Your task to perform on an android device: open a bookmark in the chrome app Image 0: 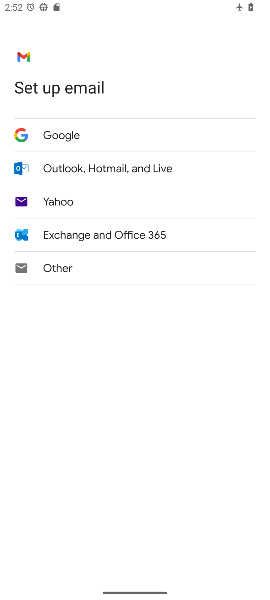
Step 0: press home button
Your task to perform on an android device: open a bookmark in the chrome app Image 1: 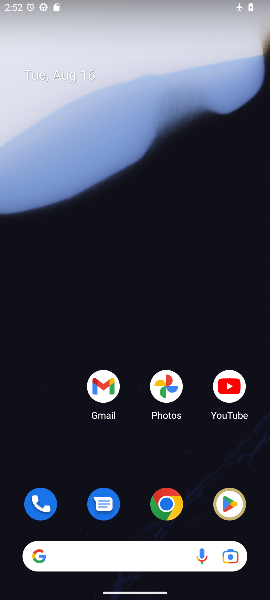
Step 1: click (168, 505)
Your task to perform on an android device: open a bookmark in the chrome app Image 2: 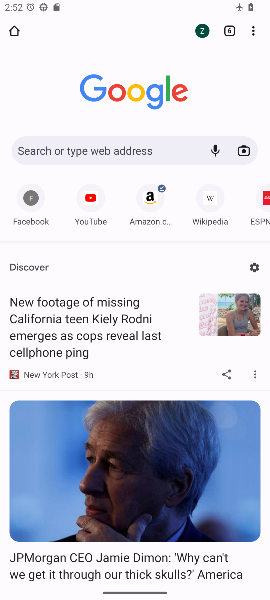
Step 2: click (251, 24)
Your task to perform on an android device: open a bookmark in the chrome app Image 3: 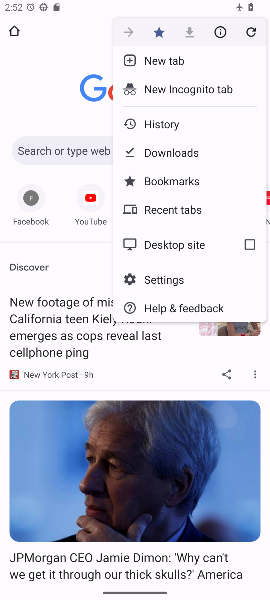
Step 3: click (165, 180)
Your task to perform on an android device: open a bookmark in the chrome app Image 4: 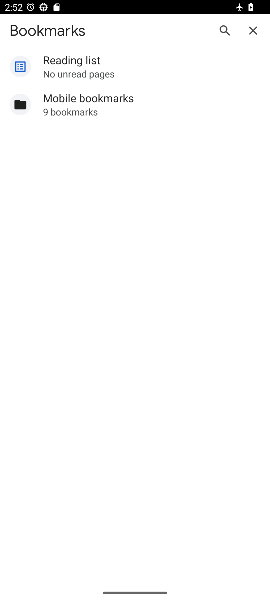
Step 4: task complete